Your task to perform on an android device: change timer sound Image 0: 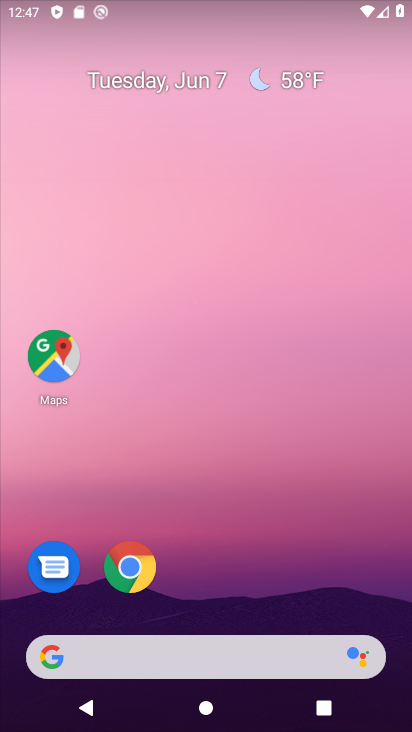
Step 0: drag from (402, 688) to (311, 112)
Your task to perform on an android device: change timer sound Image 1: 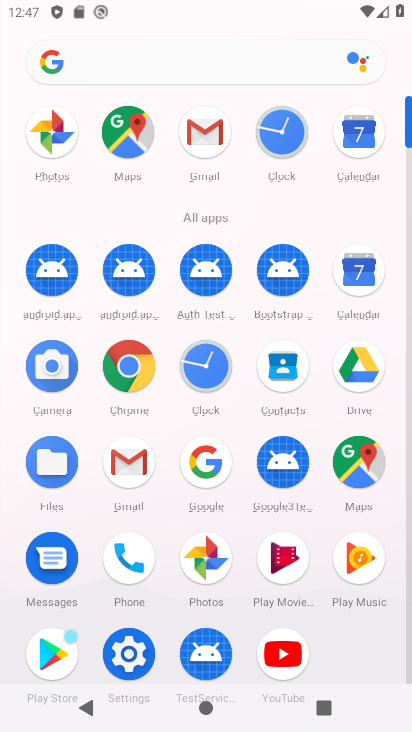
Step 1: click (210, 372)
Your task to perform on an android device: change timer sound Image 2: 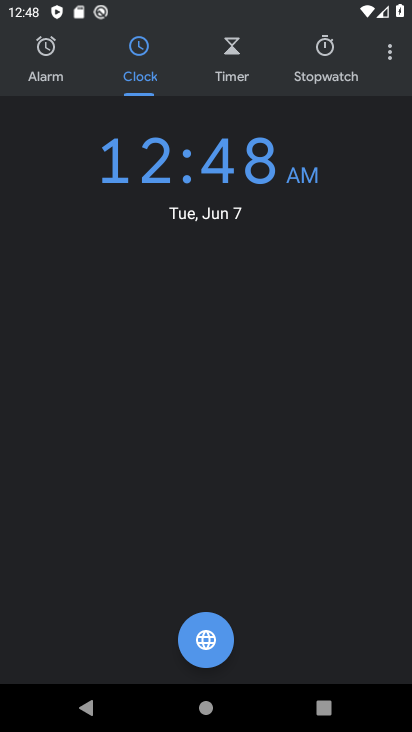
Step 2: click (392, 50)
Your task to perform on an android device: change timer sound Image 3: 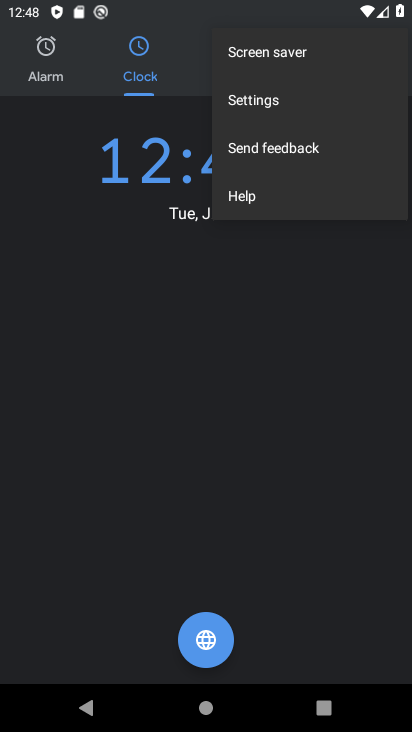
Step 3: click (262, 98)
Your task to perform on an android device: change timer sound Image 4: 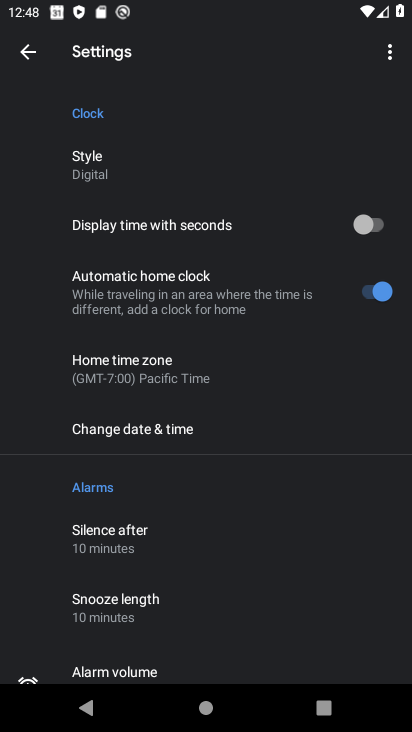
Step 4: drag from (282, 641) to (407, 440)
Your task to perform on an android device: change timer sound Image 5: 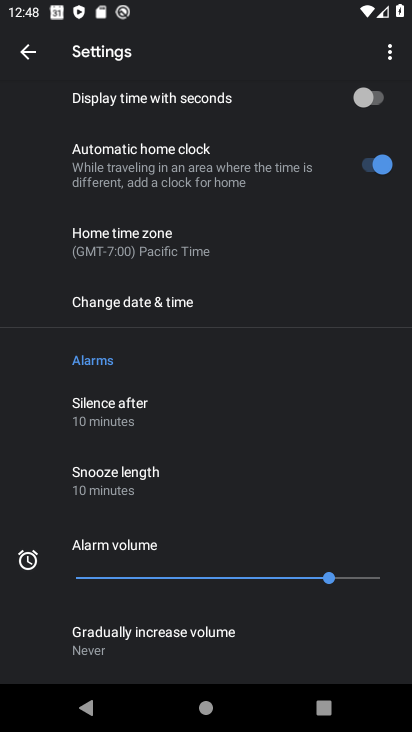
Step 5: drag from (285, 633) to (261, 138)
Your task to perform on an android device: change timer sound Image 6: 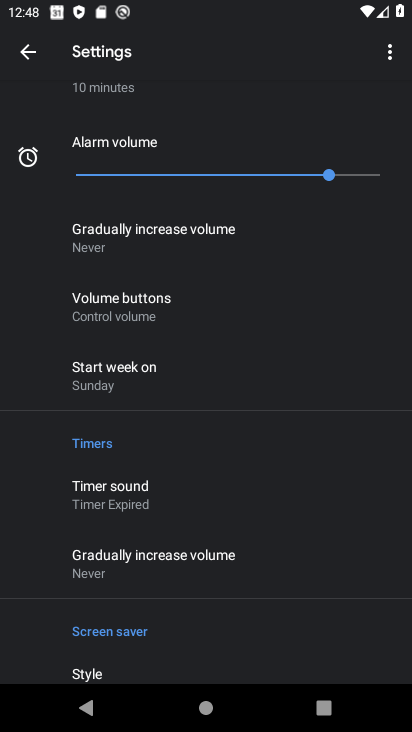
Step 6: click (122, 496)
Your task to perform on an android device: change timer sound Image 7: 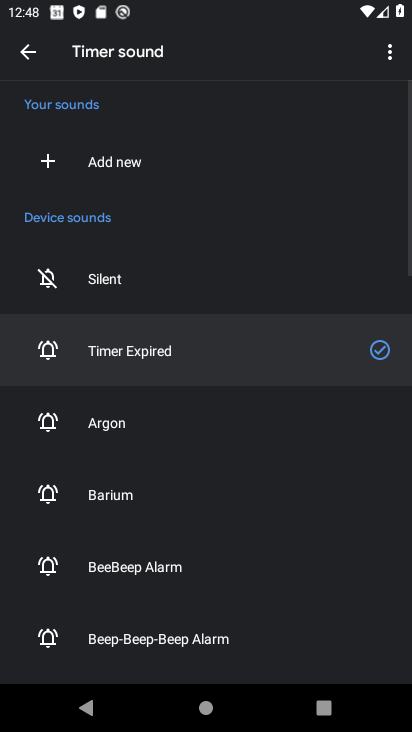
Step 7: click (115, 497)
Your task to perform on an android device: change timer sound Image 8: 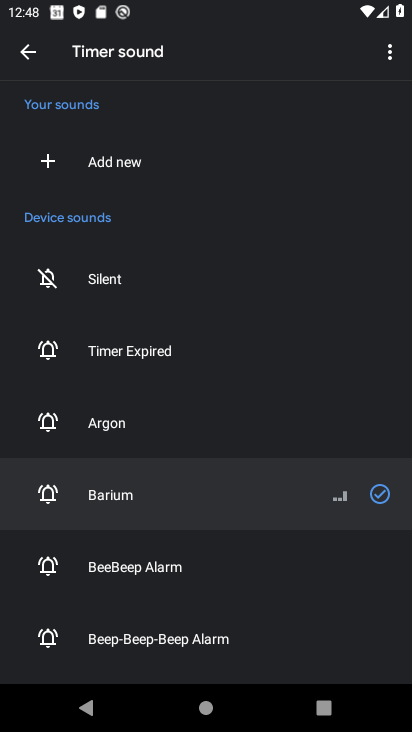
Step 8: task complete